Your task to perform on an android device: empty trash in google photos Image 0: 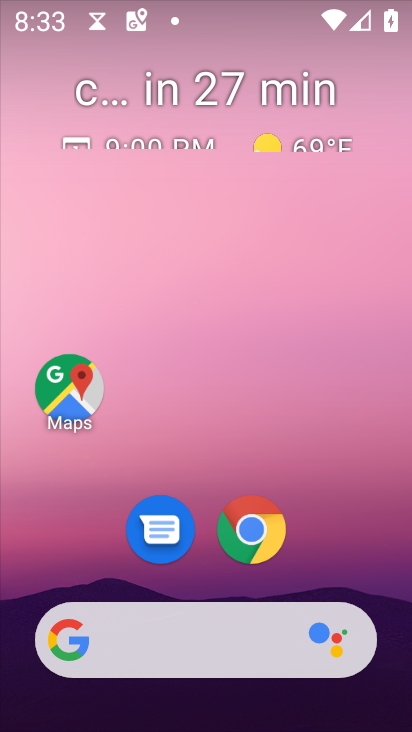
Step 0: drag from (334, 575) to (314, 44)
Your task to perform on an android device: empty trash in google photos Image 1: 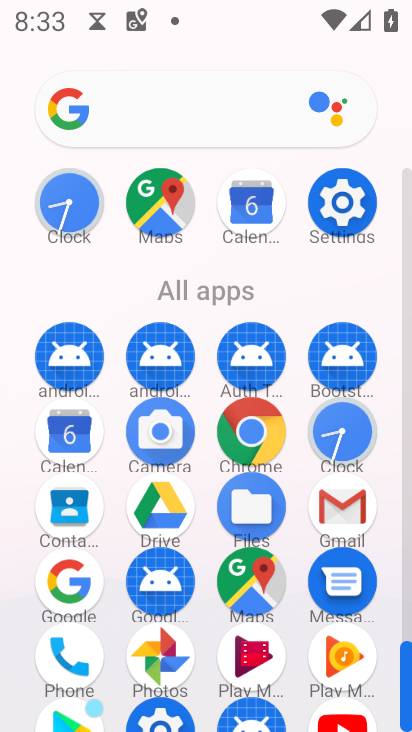
Step 1: click (161, 655)
Your task to perform on an android device: empty trash in google photos Image 2: 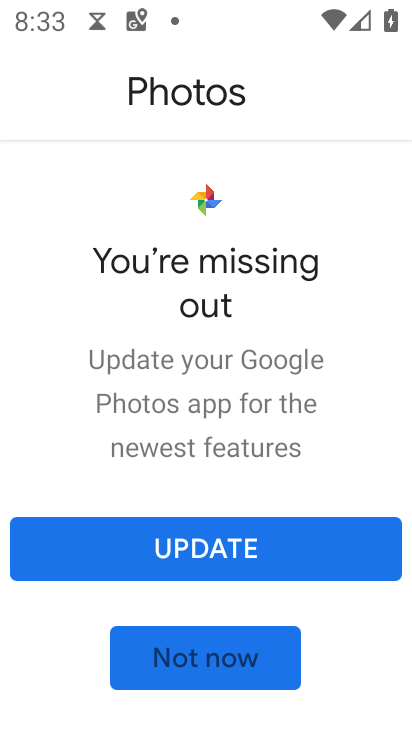
Step 2: click (227, 556)
Your task to perform on an android device: empty trash in google photos Image 3: 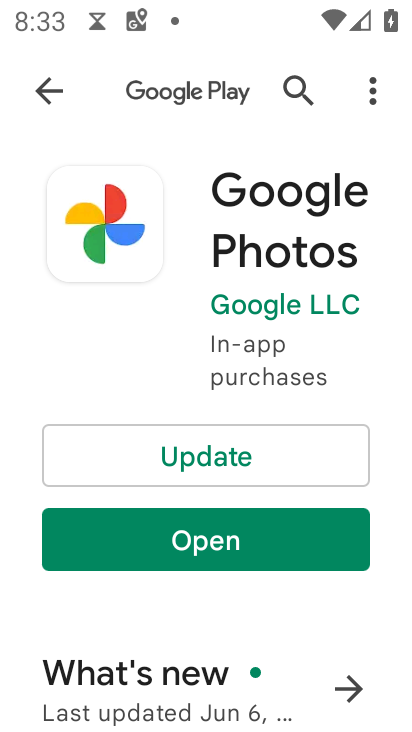
Step 3: click (242, 438)
Your task to perform on an android device: empty trash in google photos Image 4: 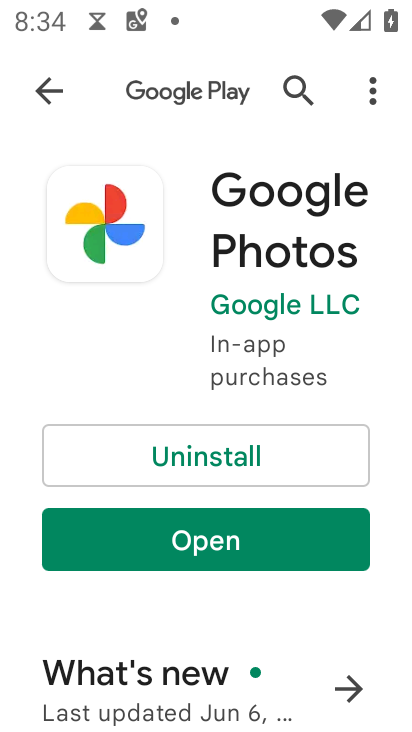
Step 4: click (219, 544)
Your task to perform on an android device: empty trash in google photos Image 5: 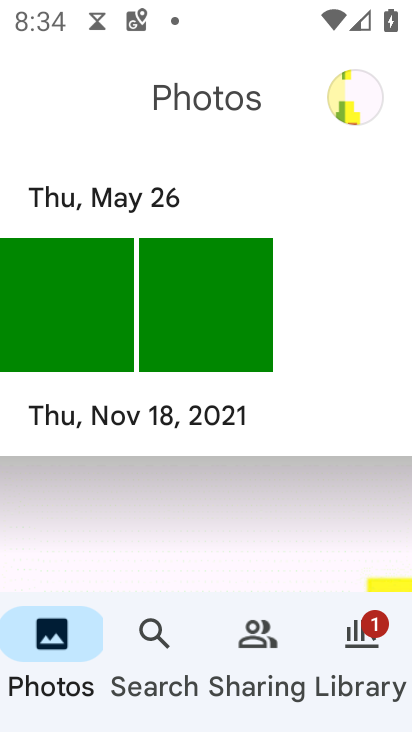
Step 5: click (356, 97)
Your task to perform on an android device: empty trash in google photos Image 6: 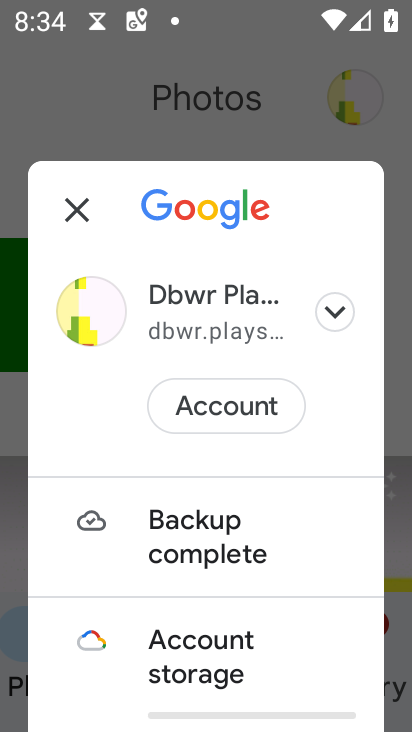
Step 6: drag from (281, 630) to (276, 226)
Your task to perform on an android device: empty trash in google photos Image 7: 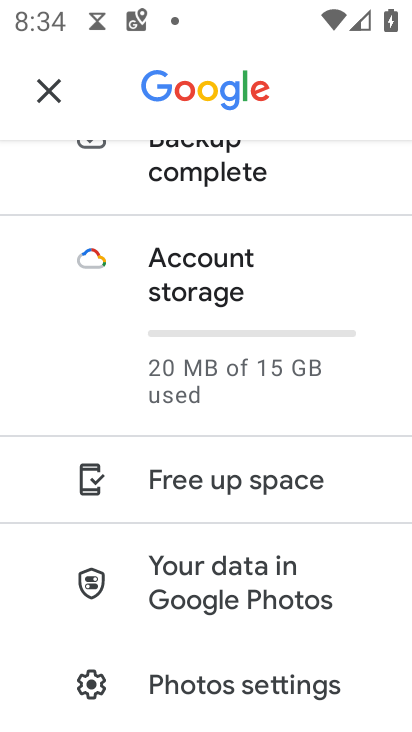
Step 7: drag from (266, 642) to (264, 96)
Your task to perform on an android device: empty trash in google photos Image 8: 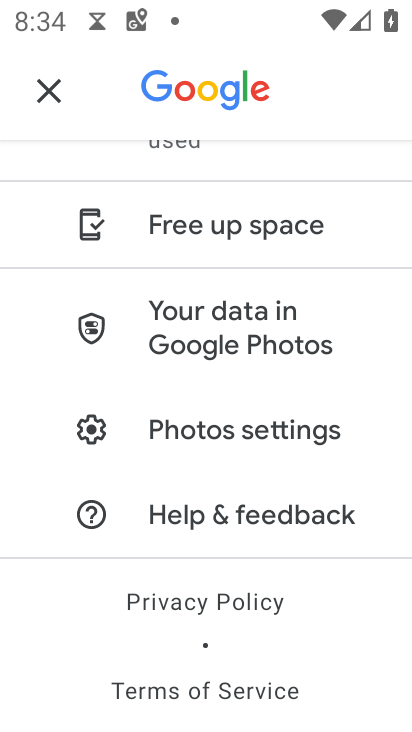
Step 8: click (241, 428)
Your task to perform on an android device: empty trash in google photos Image 9: 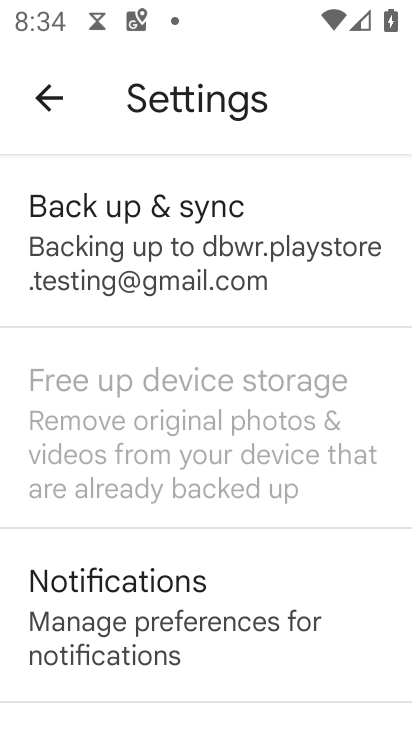
Step 9: drag from (204, 615) to (191, 123)
Your task to perform on an android device: empty trash in google photos Image 10: 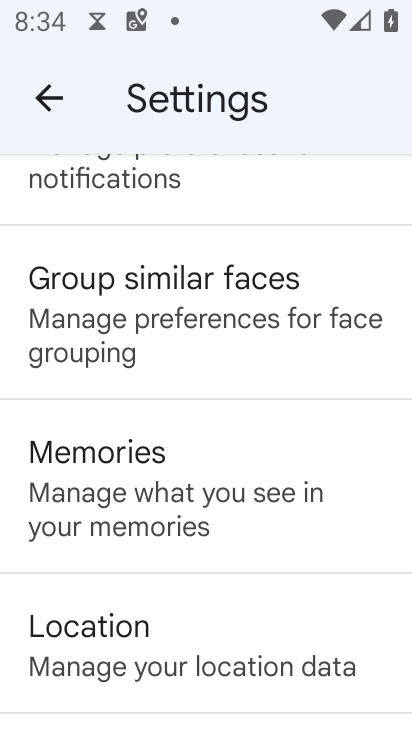
Step 10: drag from (207, 570) to (206, 181)
Your task to perform on an android device: empty trash in google photos Image 11: 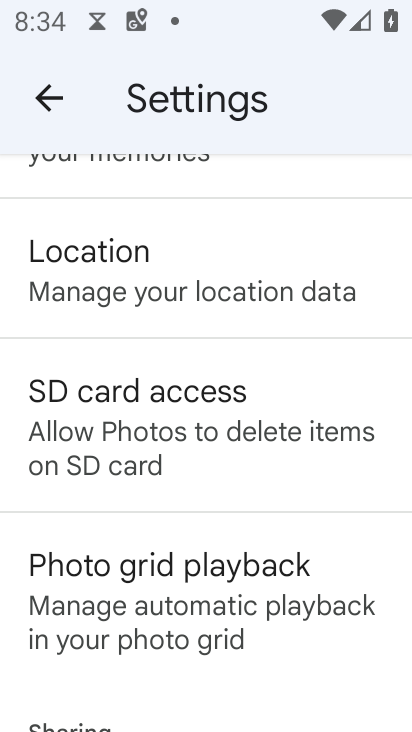
Step 11: drag from (214, 591) to (198, 183)
Your task to perform on an android device: empty trash in google photos Image 12: 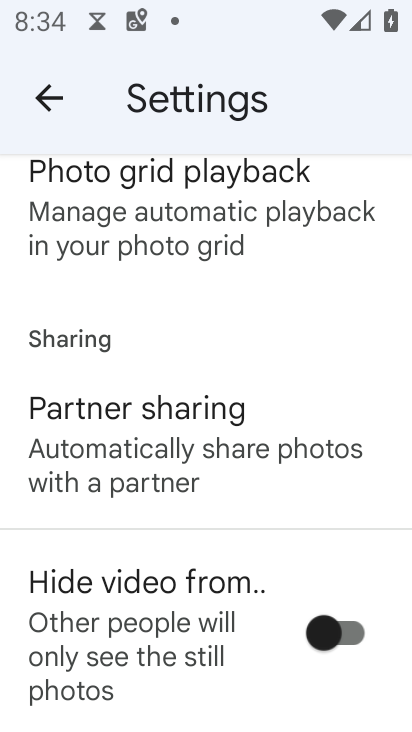
Step 12: drag from (199, 574) to (191, 191)
Your task to perform on an android device: empty trash in google photos Image 13: 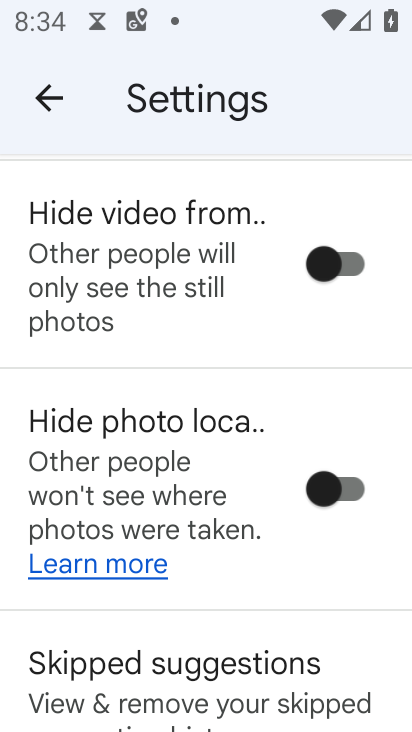
Step 13: drag from (188, 625) to (191, 240)
Your task to perform on an android device: empty trash in google photos Image 14: 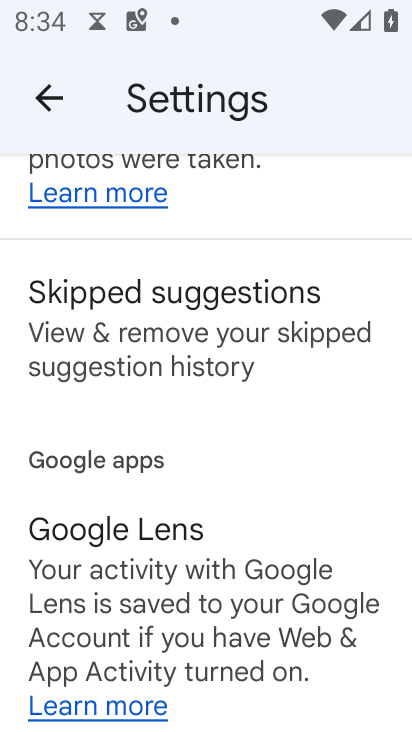
Step 14: drag from (192, 641) to (178, 259)
Your task to perform on an android device: empty trash in google photos Image 15: 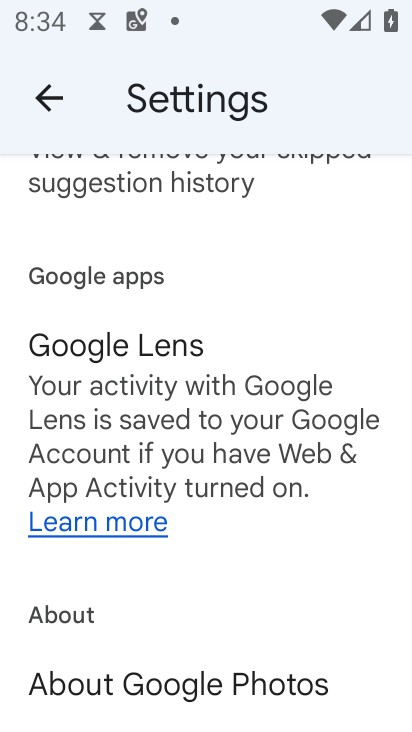
Step 15: click (178, 683)
Your task to perform on an android device: empty trash in google photos Image 16: 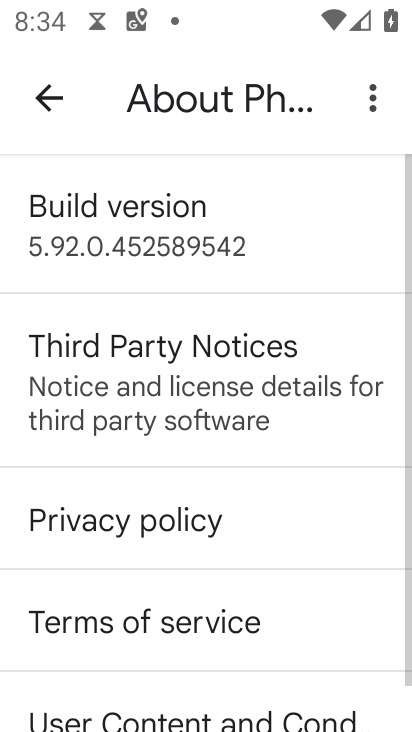
Step 16: drag from (227, 598) to (230, 144)
Your task to perform on an android device: empty trash in google photos Image 17: 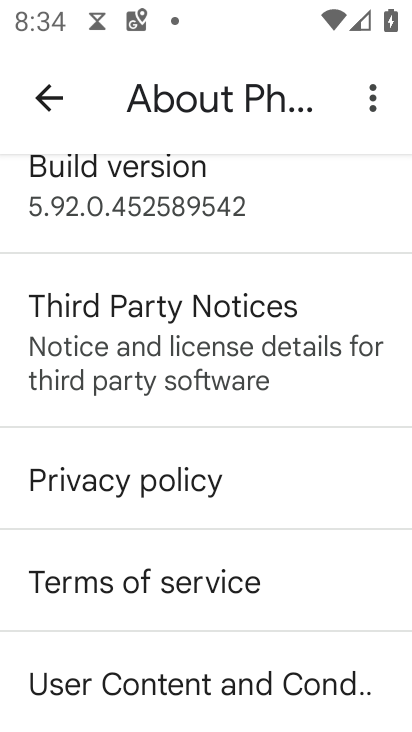
Step 17: click (41, 90)
Your task to perform on an android device: empty trash in google photos Image 18: 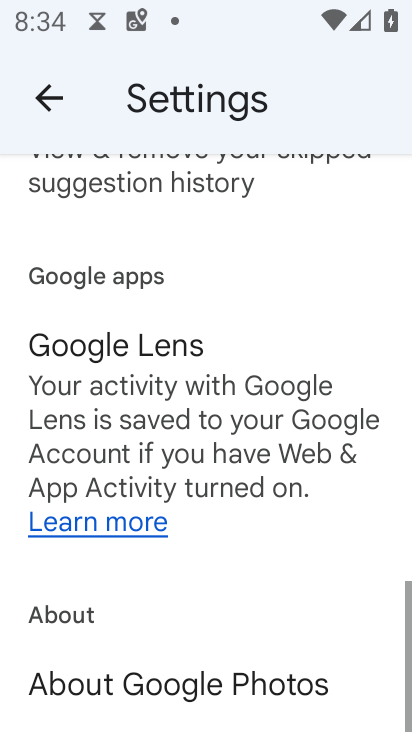
Step 18: click (41, 90)
Your task to perform on an android device: empty trash in google photos Image 19: 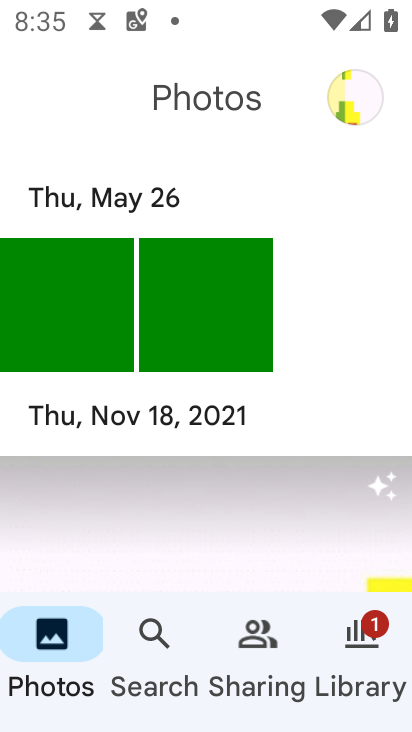
Step 19: click (357, 88)
Your task to perform on an android device: empty trash in google photos Image 20: 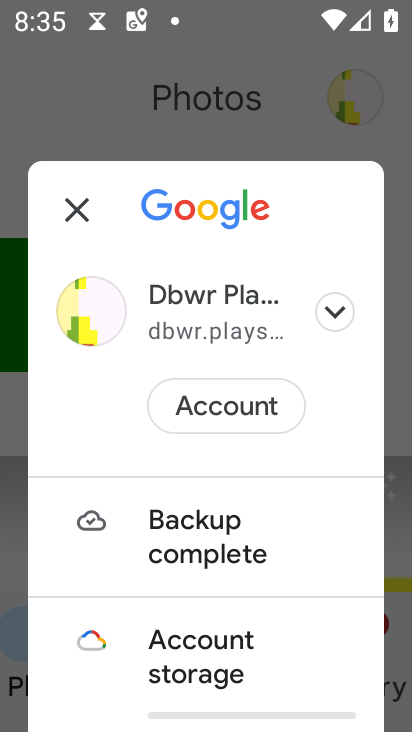
Step 20: drag from (266, 648) to (256, 162)
Your task to perform on an android device: empty trash in google photos Image 21: 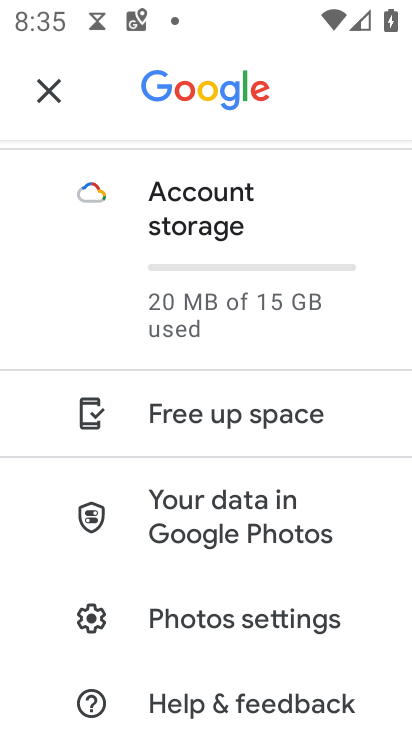
Step 21: drag from (257, 552) to (246, 232)
Your task to perform on an android device: empty trash in google photos Image 22: 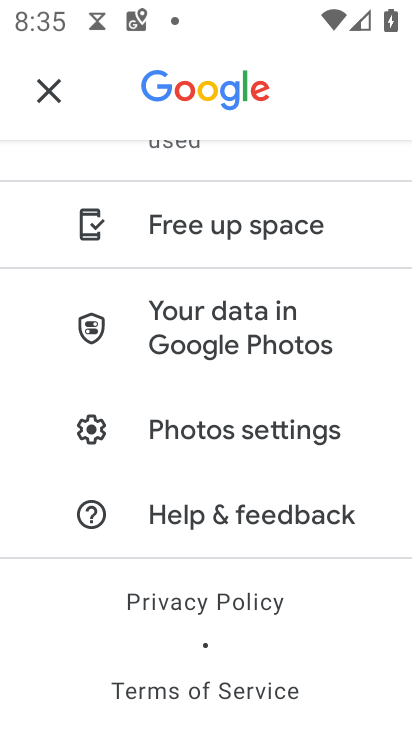
Step 22: drag from (244, 626) to (257, 246)
Your task to perform on an android device: empty trash in google photos Image 23: 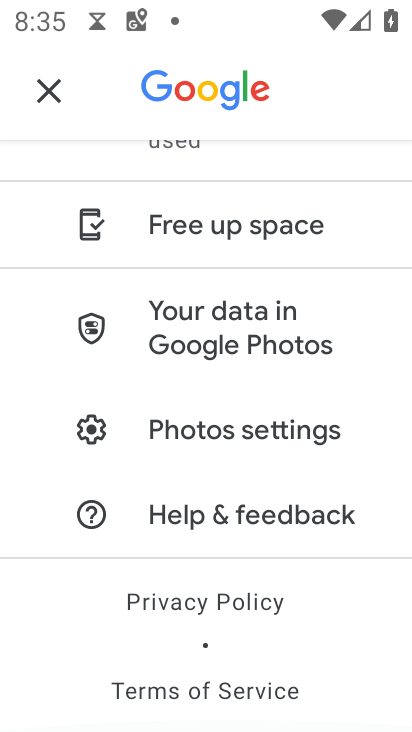
Step 23: drag from (275, 213) to (231, 726)
Your task to perform on an android device: empty trash in google photos Image 24: 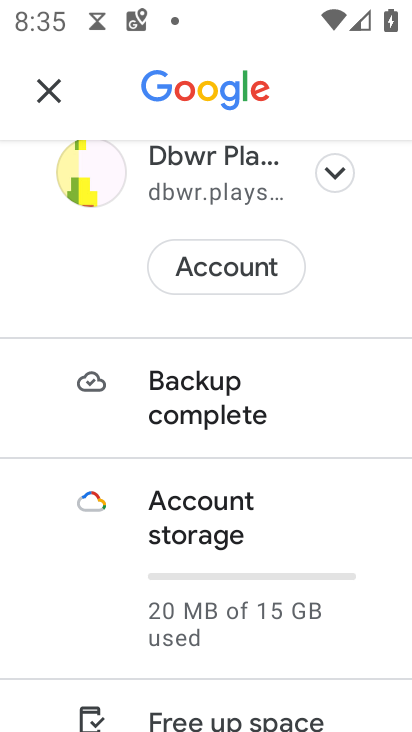
Step 24: drag from (271, 222) to (299, 625)
Your task to perform on an android device: empty trash in google photos Image 25: 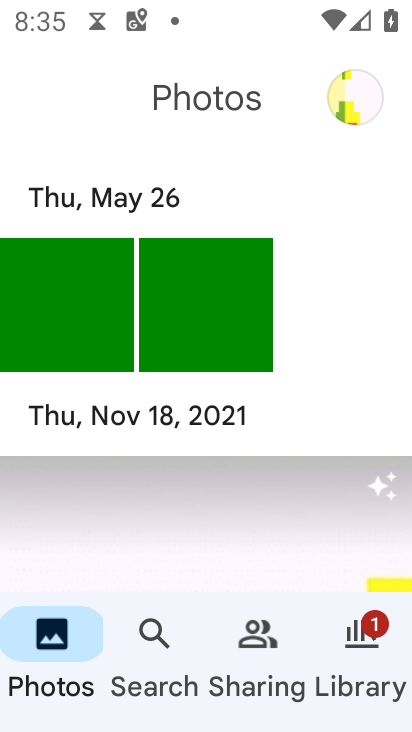
Step 25: click (372, 656)
Your task to perform on an android device: empty trash in google photos Image 26: 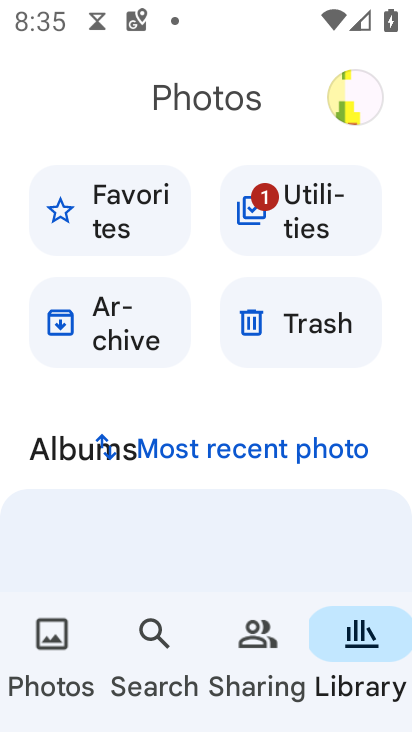
Step 26: click (295, 327)
Your task to perform on an android device: empty trash in google photos Image 27: 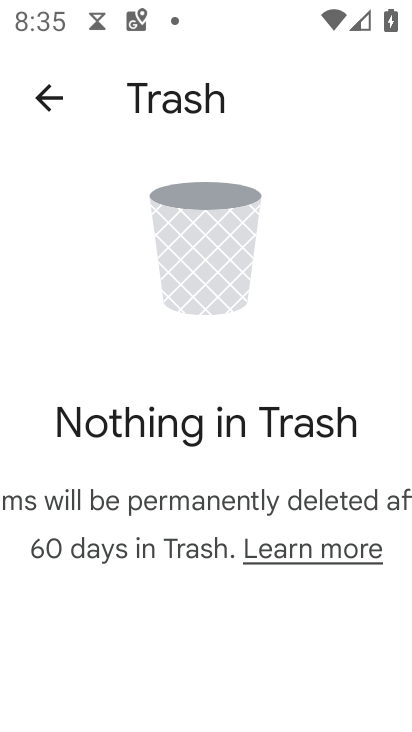
Step 27: task complete